Your task to perform on an android device: Go to Yahoo.com Image 0: 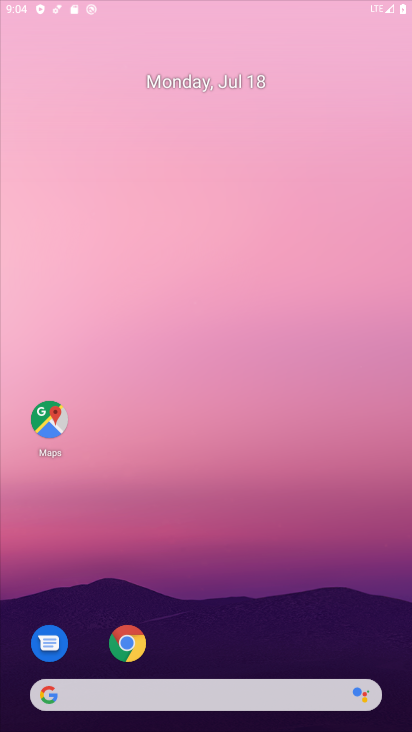
Step 0: click (353, 172)
Your task to perform on an android device: Go to Yahoo.com Image 1: 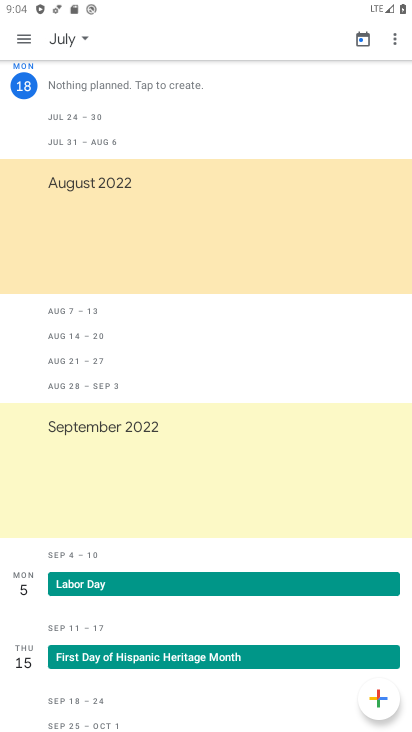
Step 1: press home button
Your task to perform on an android device: Go to Yahoo.com Image 2: 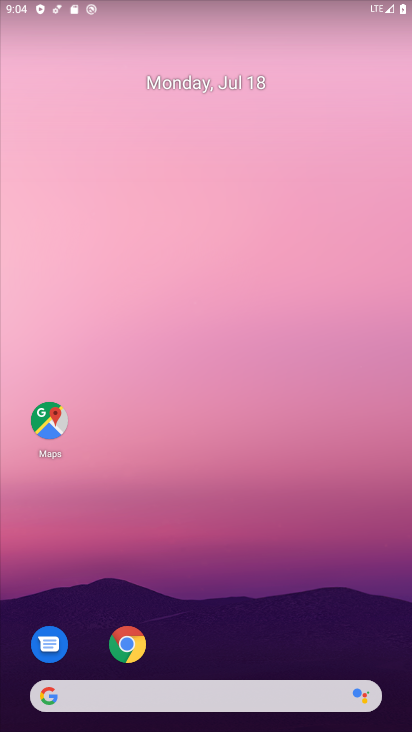
Step 2: drag from (325, 635) to (327, 133)
Your task to perform on an android device: Go to Yahoo.com Image 3: 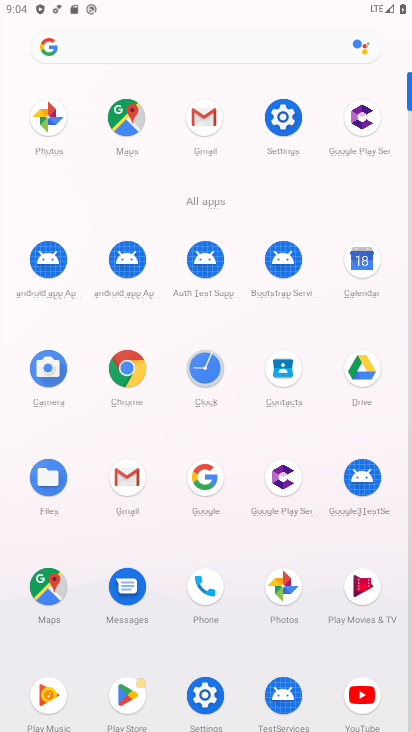
Step 3: click (135, 378)
Your task to perform on an android device: Go to Yahoo.com Image 4: 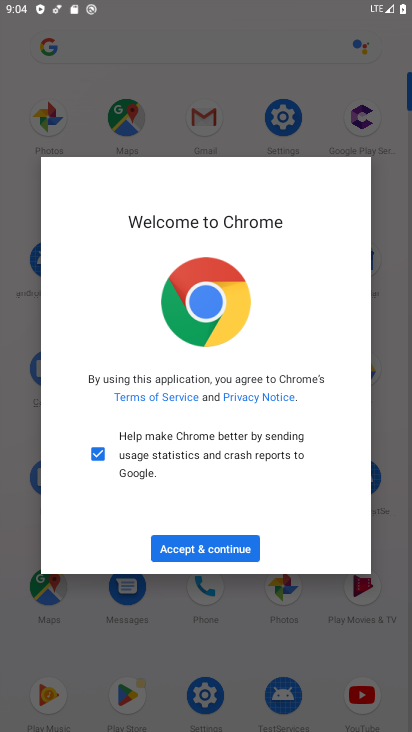
Step 4: click (198, 556)
Your task to perform on an android device: Go to Yahoo.com Image 5: 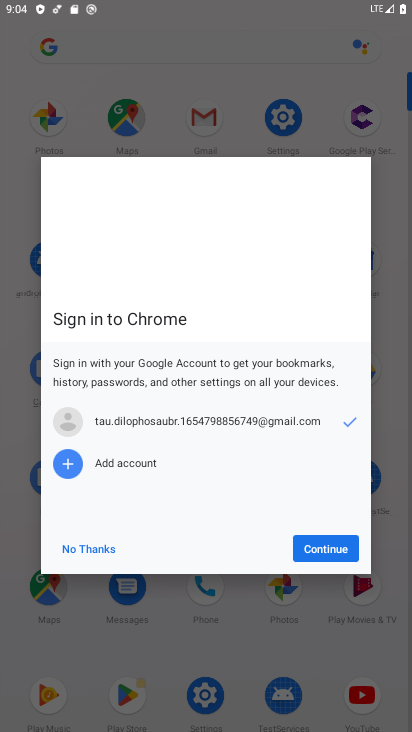
Step 5: click (334, 541)
Your task to perform on an android device: Go to Yahoo.com Image 6: 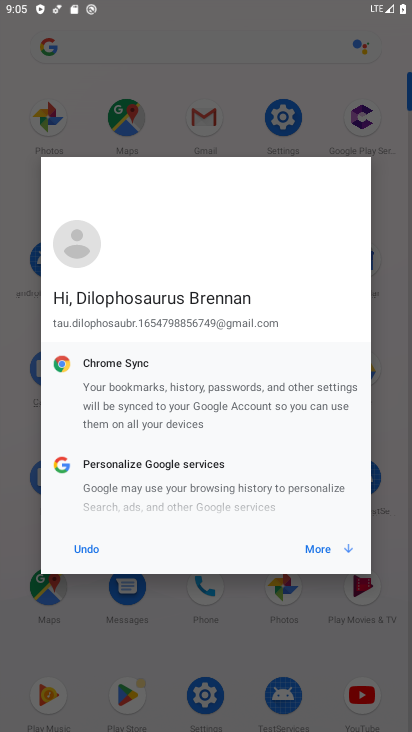
Step 6: click (322, 553)
Your task to perform on an android device: Go to Yahoo.com Image 7: 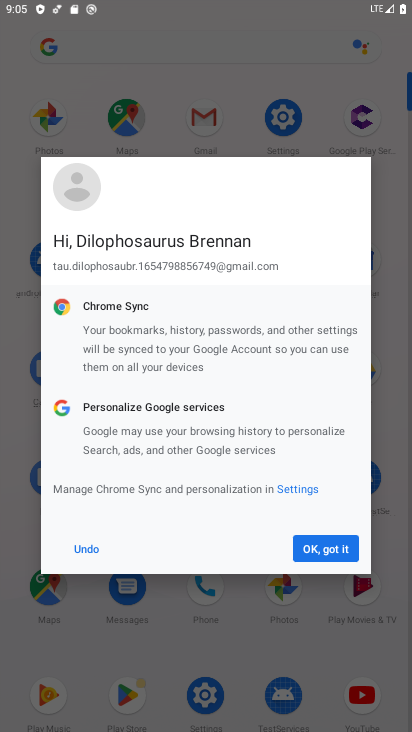
Step 7: click (329, 550)
Your task to perform on an android device: Go to Yahoo.com Image 8: 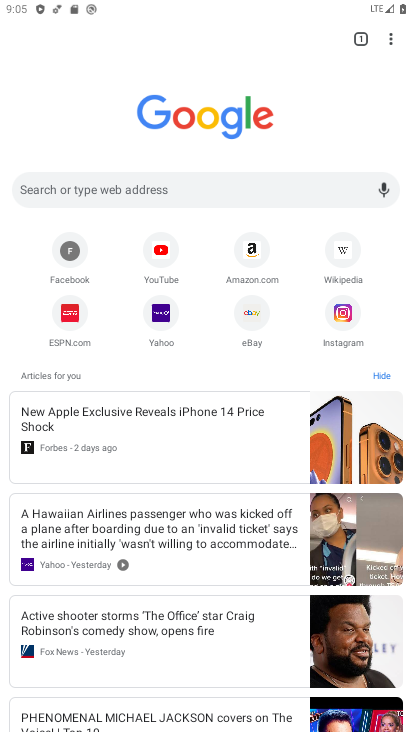
Step 8: click (245, 196)
Your task to perform on an android device: Go to Yahoo.com Image 9: 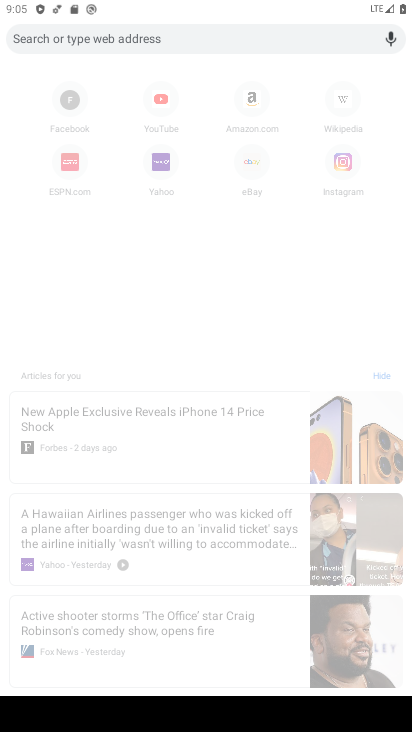
Step 9: type "yahoo.com"
Your task to perform on an android device: Go to Yahoo.com Image 10: 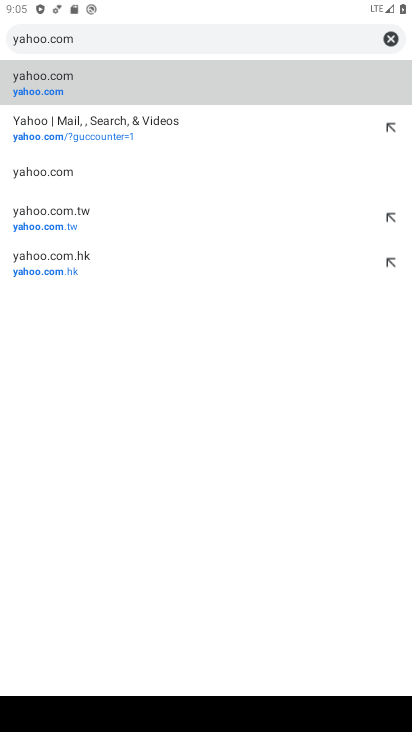
Step 10: click (95, 80)
Your task to perform on an android device: Go to Yahoo.com Image 11: 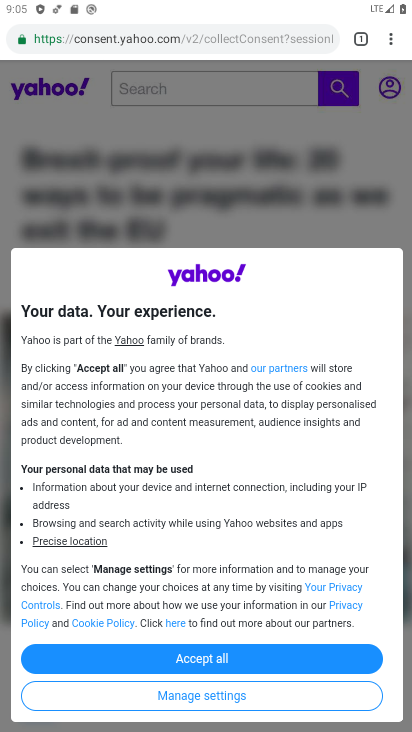
Step 11: task complete